Your task to perform on an android device: Open the stopwatch Image 0: 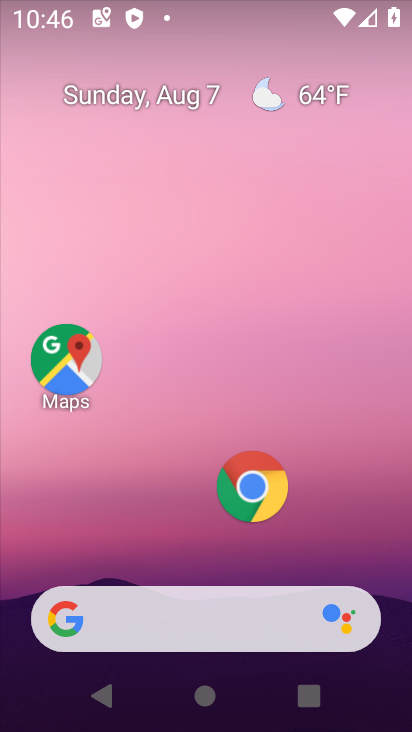
Step 0: drag from (243, 679) to (231, 268)
Your task to perform on an android device: Open the stopwatch Image 1: 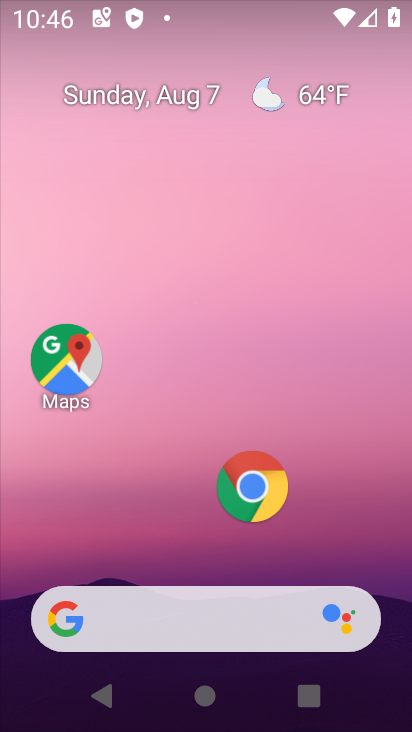
Step 1: drag from (247, 684) to (292, 95)
Your task to perform on an android device: Open the stopwatch Image 2: 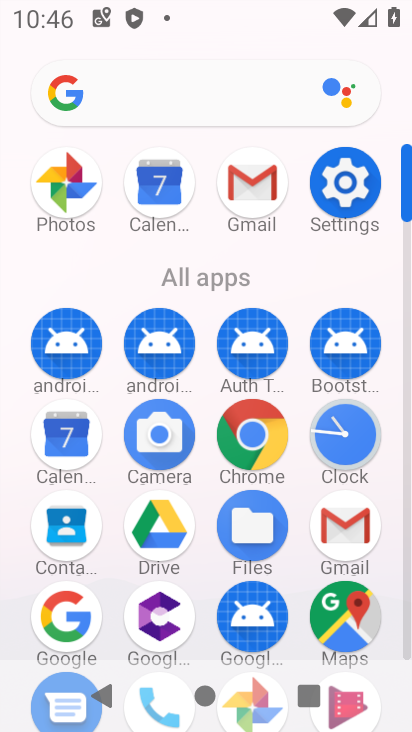
Step 2: click (365, 451)
Your task to perform on an android device: Open the stopwatch Image 3: 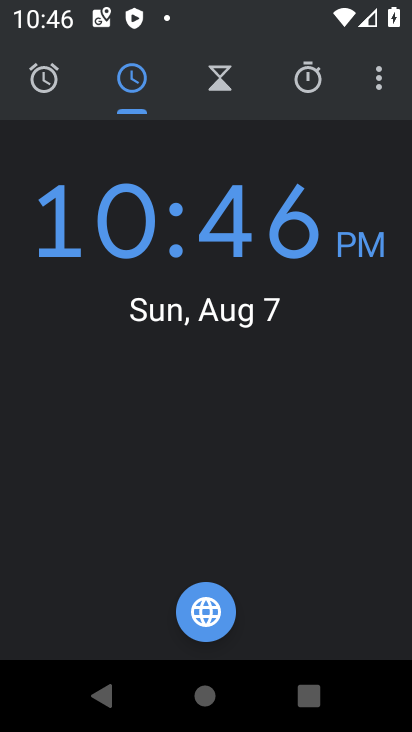
Step 3: click (303, 79)
Your task to perform on an android device: Open the stopwatch Image 4: 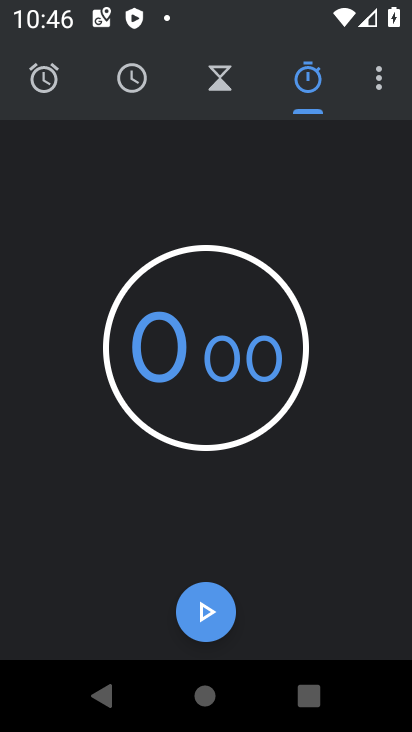
Step 4: task complete